Your task to perform on an android device: toggle improve location accuracy Image 0: 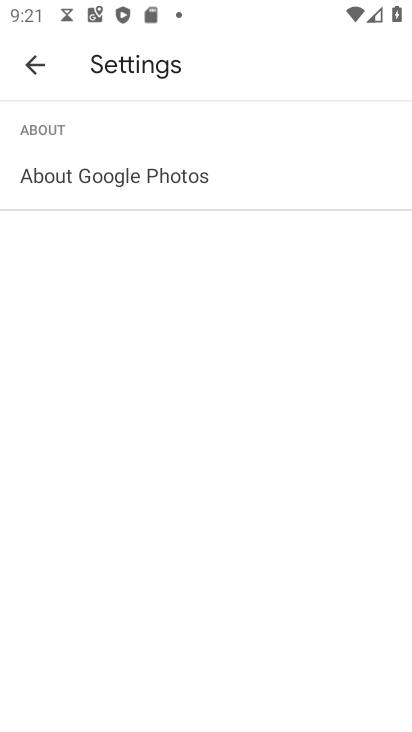
Step 0: press home button
Your task to perform on an android device: toggle improve location accuracy Image 1: 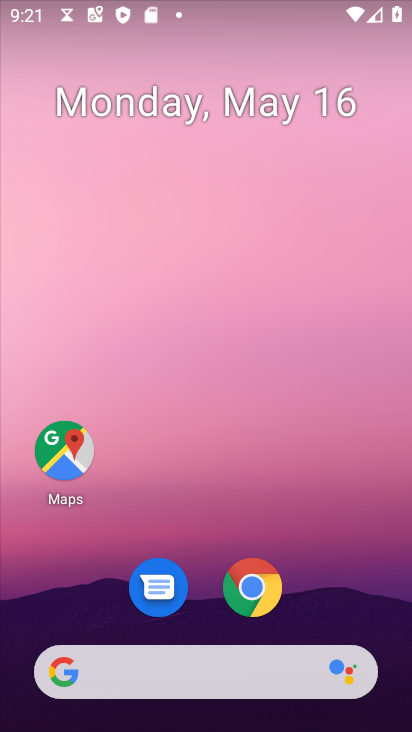
Step 1: drag from (354, 614) to (306, 219)
Your task to perform on an android device: toggle improve location accuracy Image 2: 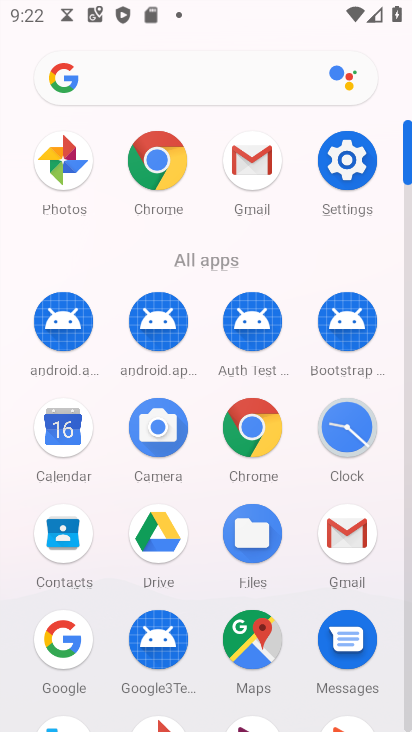
Step 2: click (342, 173)
Your task to perform on an android device: toggle improve location accuracy Image 3: 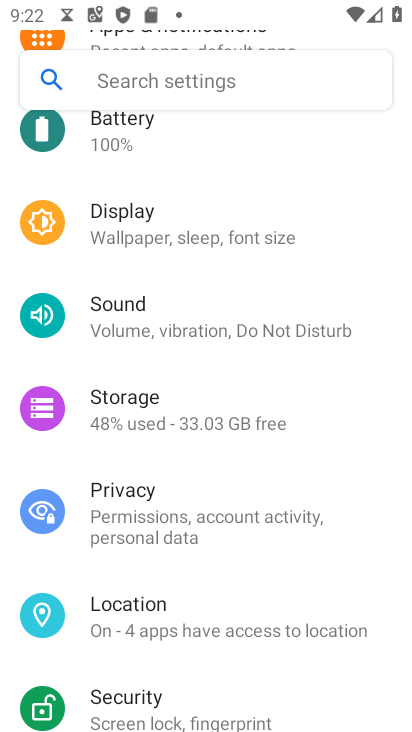
Step 3: click (308, 613)
Your task to perform on an android device: toggle improve location accuracy Image 4: 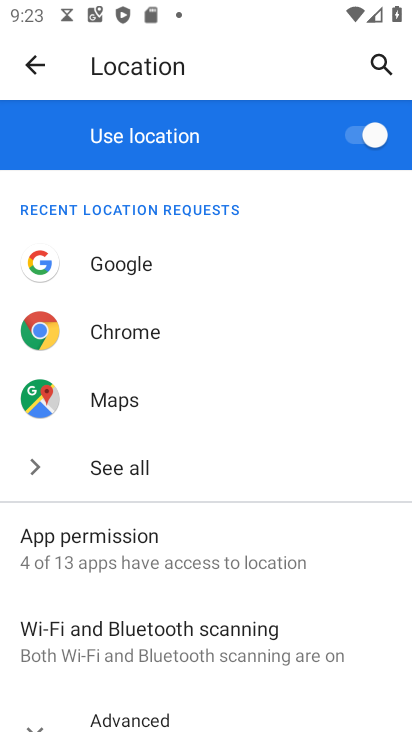
Step 4: drag from (322, 654) to (284, 319)
Your task to perform on an android device: toggle improve location accuracy Image 5: 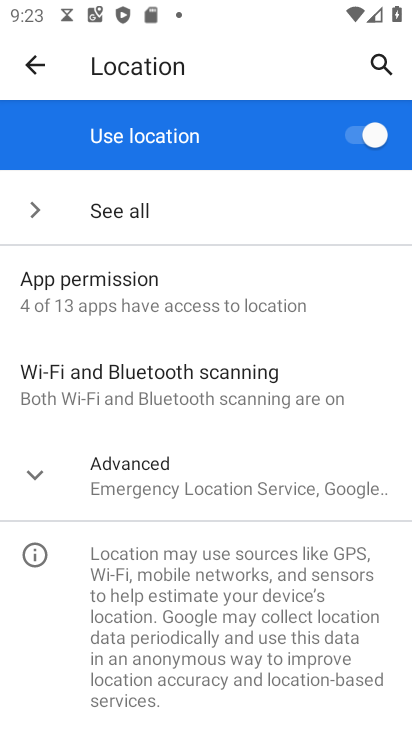
Step 5: click (302, 474)
Your task to perform on an android device: toggle improve location accuracy Image 6: 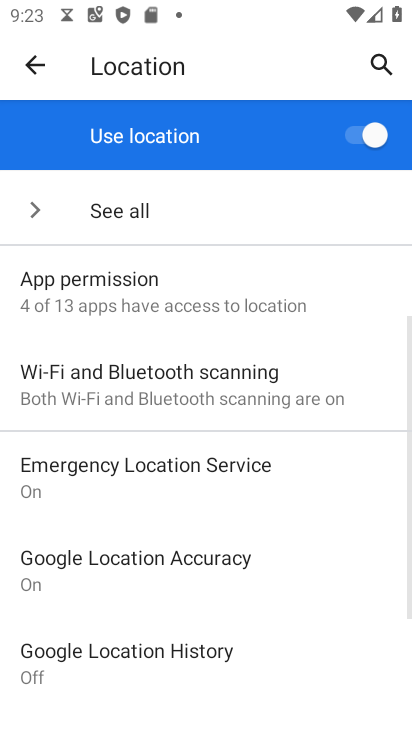
Step 6: drag from (342, 652) to (280, 381)
Your task to perform on an android device: toggle improve location accuracy Image 7: 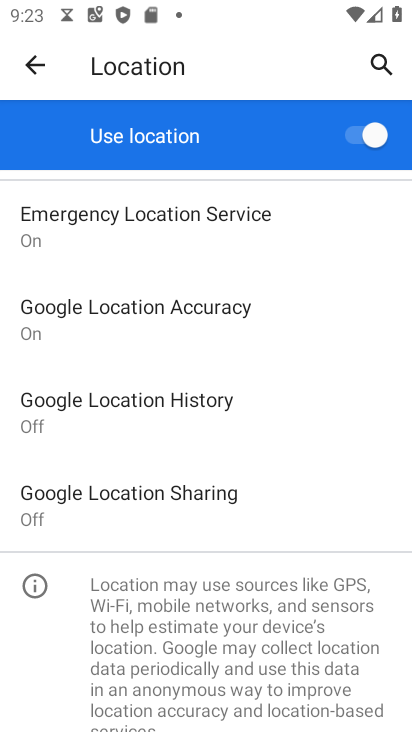
Step 7: click (247, 316)
Your task to perform on an android device: toggle improve location accuracy Image 8: 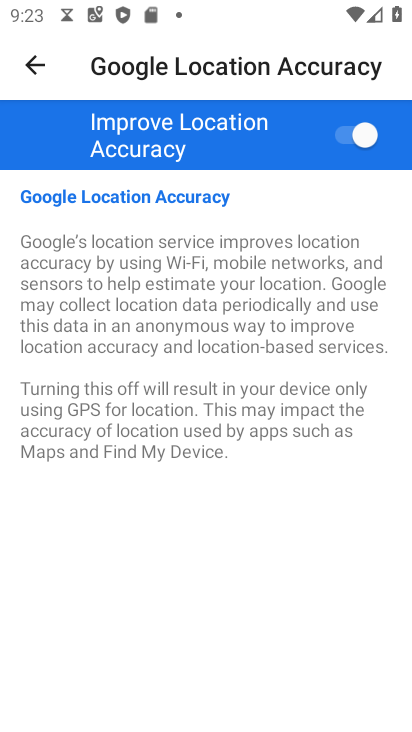
Step 8: click (341, 137)
Your task to perform on an android device: toggle improve location accuracy Image 9: 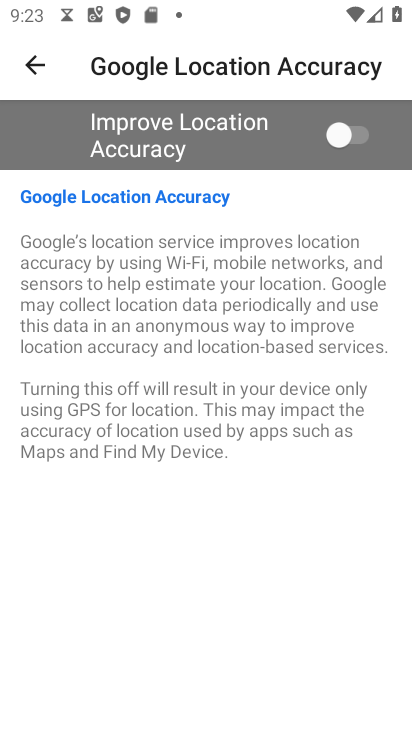
Step 9: task complete